Your task to perform on an android device: Open calendar and show me the second week of next month Image 0: 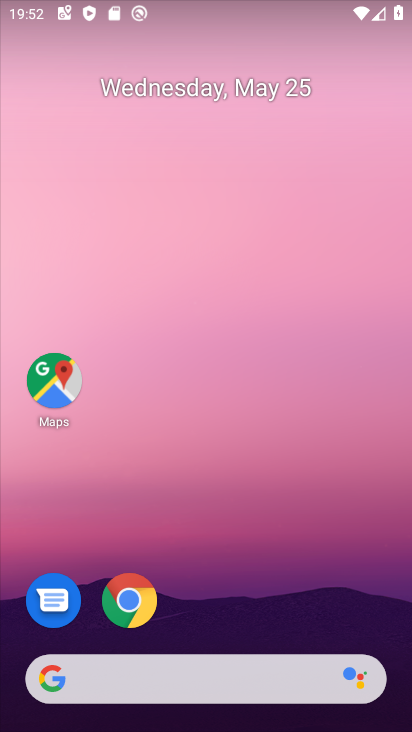
Step 0: drag from (314, 606) to (309, 160)
Your task to perform on an android device: Open calendar and show me the second week of next month Image 1: 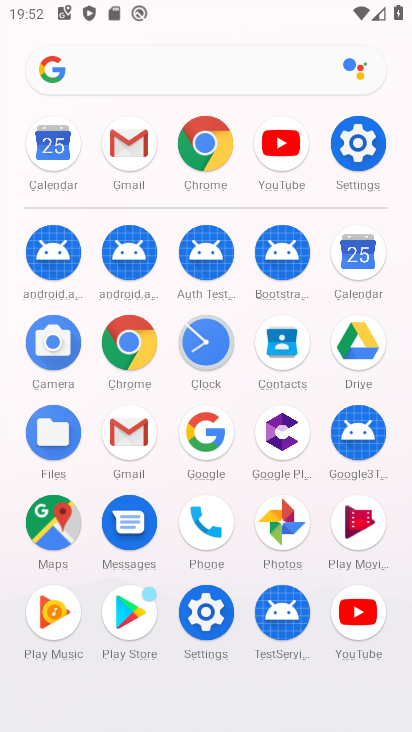
Step 1: click (354, 270)
Your task to perform on an android device: Open calendar and show me the second week of next month Image 2: 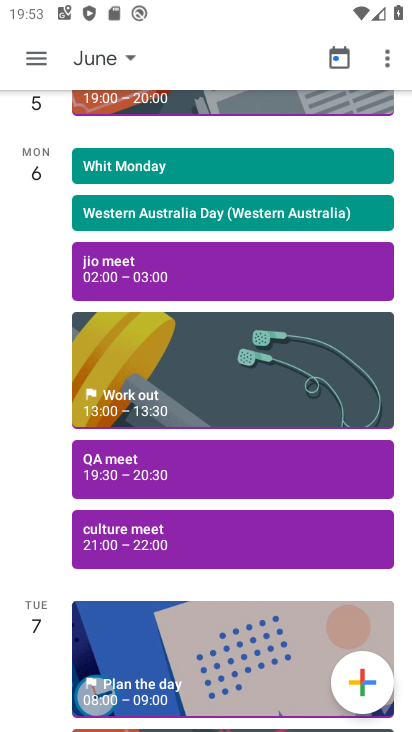
Step 2: click (100, 73)
Your task to perform on an android device: Open calendar and show me the second week of next month Image 3: 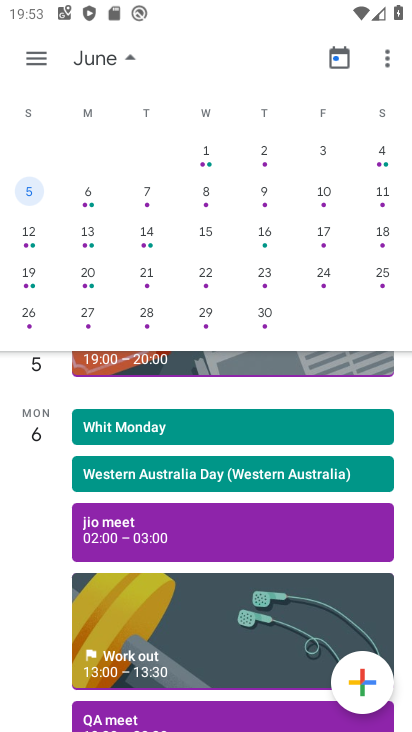
Step 3: click (35, 199)
Your task to perform on an android device: Open calendar and show me the second week of next month Image 4: 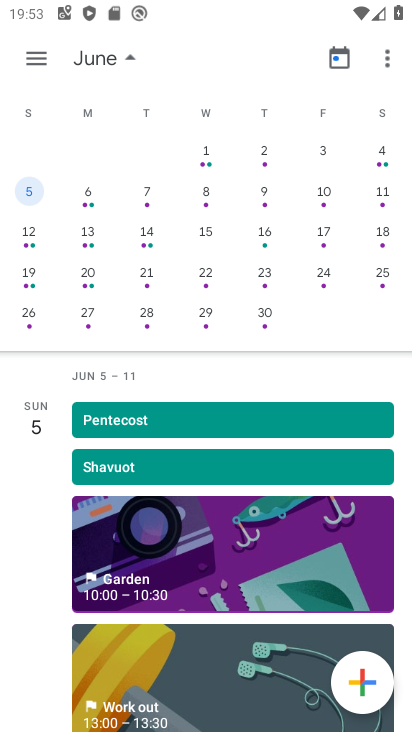
Step 4: task complete